Your task to perform on an android device: Go to Google Image 0: 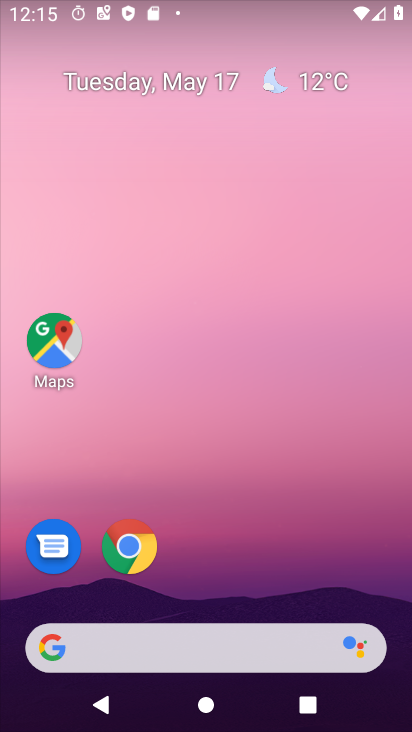
Step 0: press home button
Your task to perform on an android device: Go to Google Image 1: 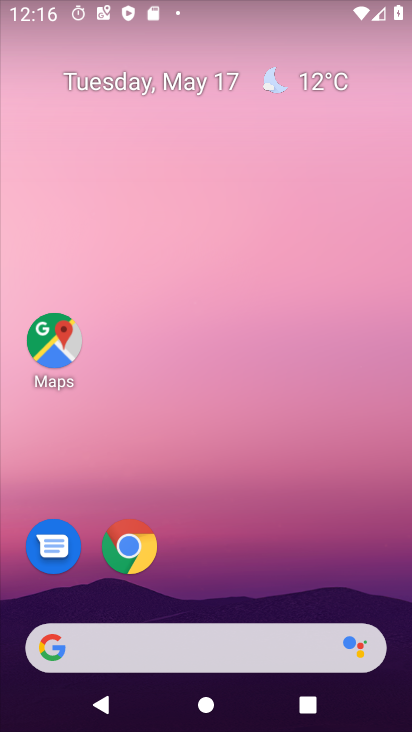
Step 1: drag from (172, 662) to (343, 50)
Your task to perform on an android device: Go to Google Image 2: 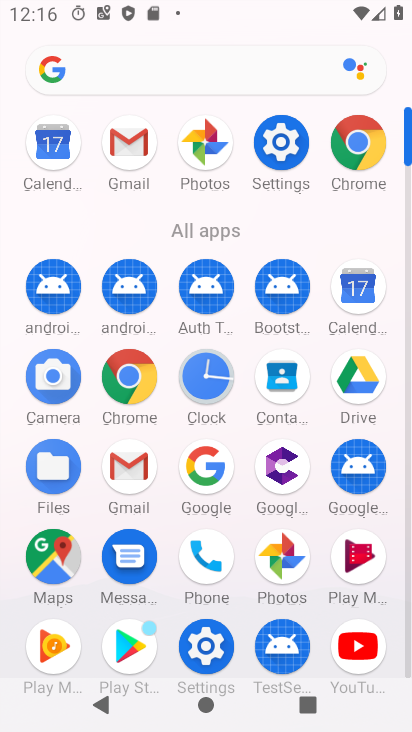
Step 2: click (206, 470)
Your task to perform on an android device: Go to Google Image 3: 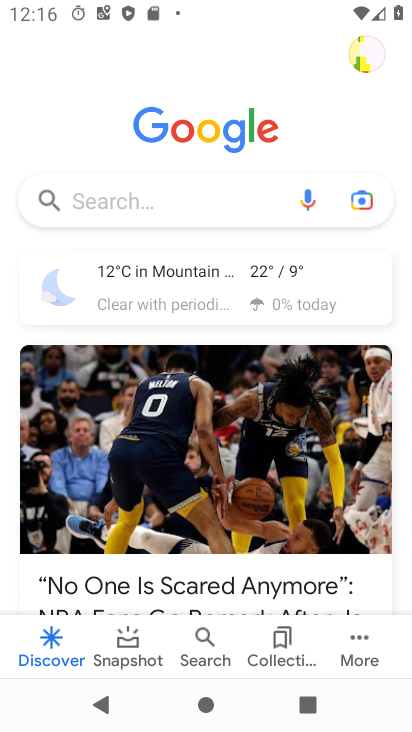
Step 3: task complete